Your task to perform on an android device: Toggle the flashlight Image 0: 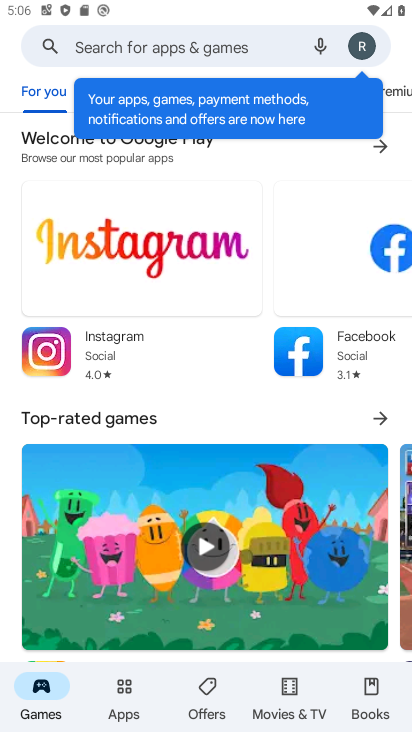
Step 0: press home button
Your task to perform on an android device: Toggle the flashlight Image 1: 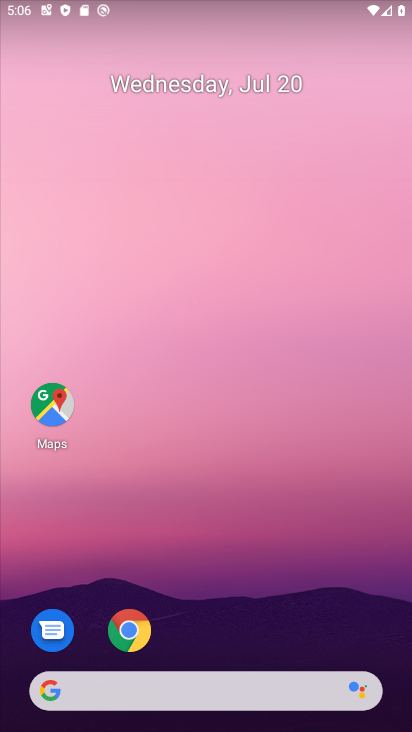
Step 1: task complete